Your task to perform on an android device: star an email in the gmail app Image 0: 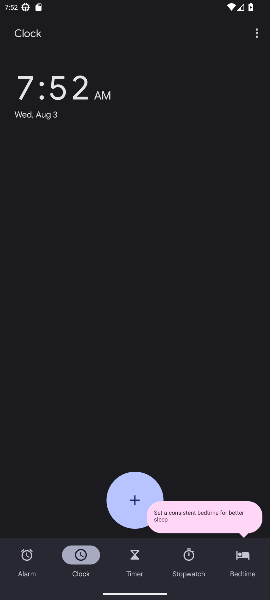
Step 0: press home button
Your task to perform on an android device: star an email in the gmail app Image 1: 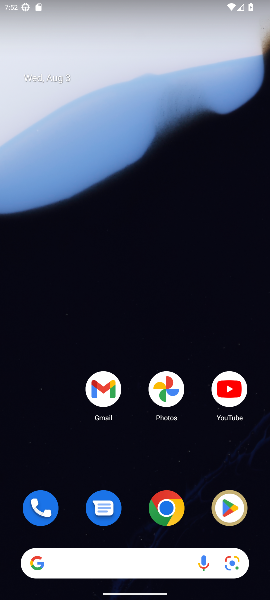
Step 1: drag from (122, 542) to (253, 511)
Your task to perform on an android device: star an email in the gmail app Image 2: 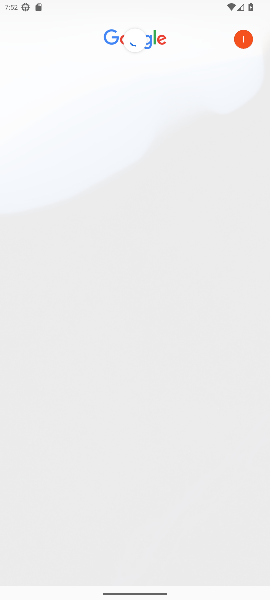
Step 2: press back button
Your task to perform on an android device: star an email in the gmail app Image 3: 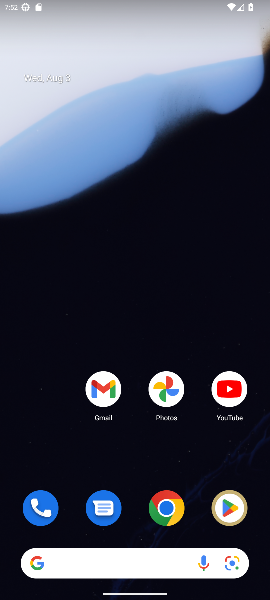
Step 3: drag from (133, 534) to (61, 11)
Your task to perform on an android device: star an email in the gmail app Image 4: 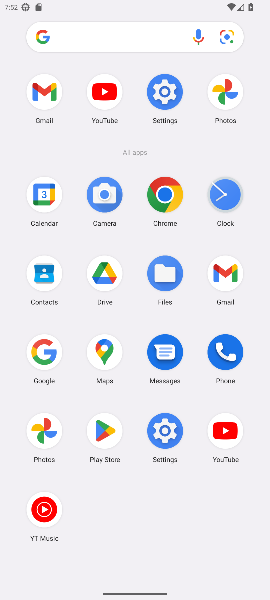
Step 4: click (228, 276)
Your task to perform on an android device: star an email in the gmail app Image 5: 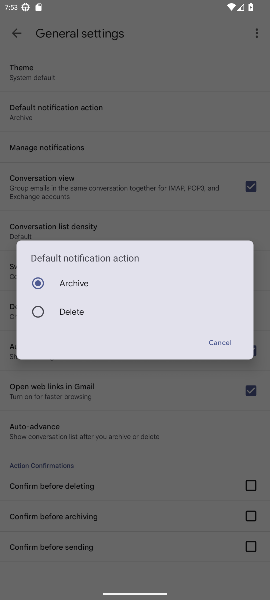
Step 5: click (202, 346)
Your task to perform on an android device: star an email in the gmail app Image 6: 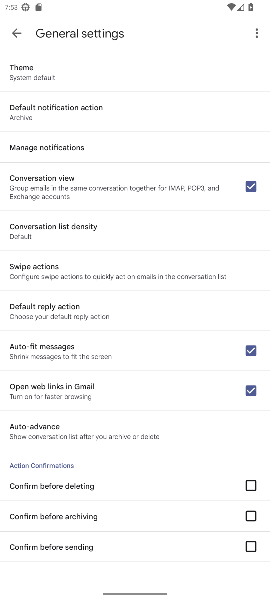
Step 6: click (15, 38)
Your task to perform on an android device: star an email in the gmail app Image 7: 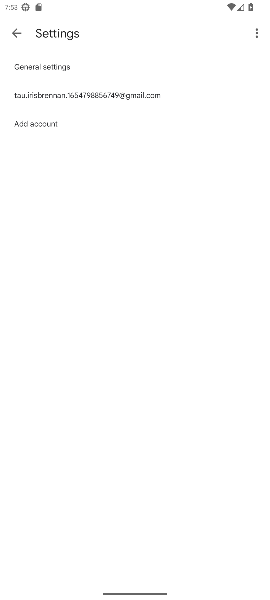
Step 7: click (14, 37)
Your task to perform on an android device: star an email in the gmail app Image 8: 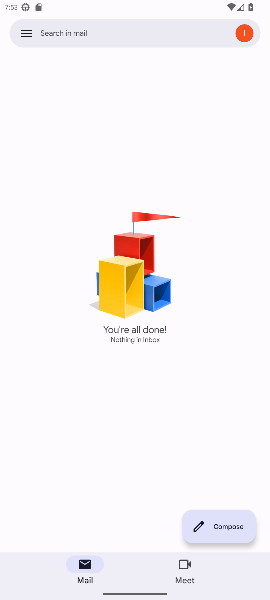
Step 8: task complete